Your task to perform on an android device: Add macbook air to the cart on newegg.com Image 0: 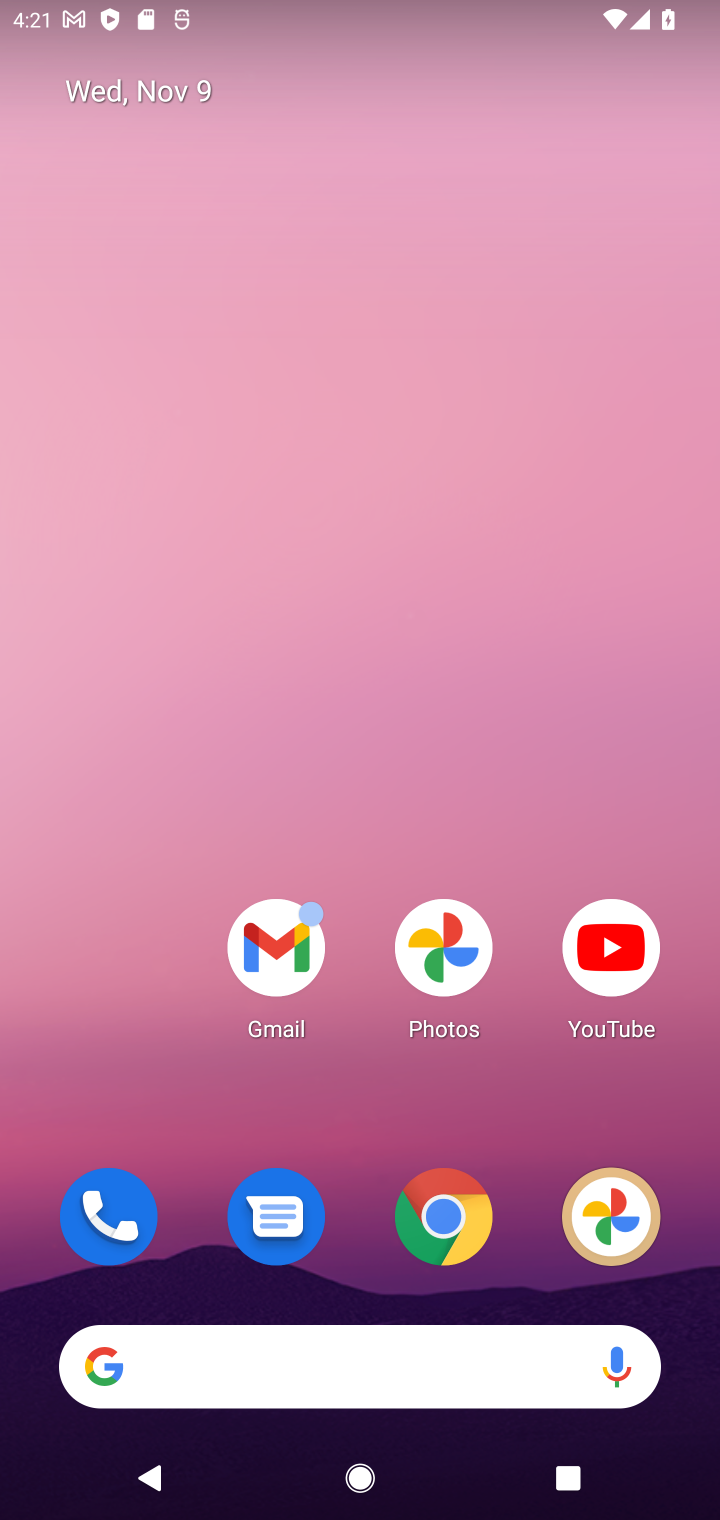
Step 0: drag from (374, 979) to (355, 29)
Your task to perform on an android device: Add macbook air to the cart on newegg.com Image 1: 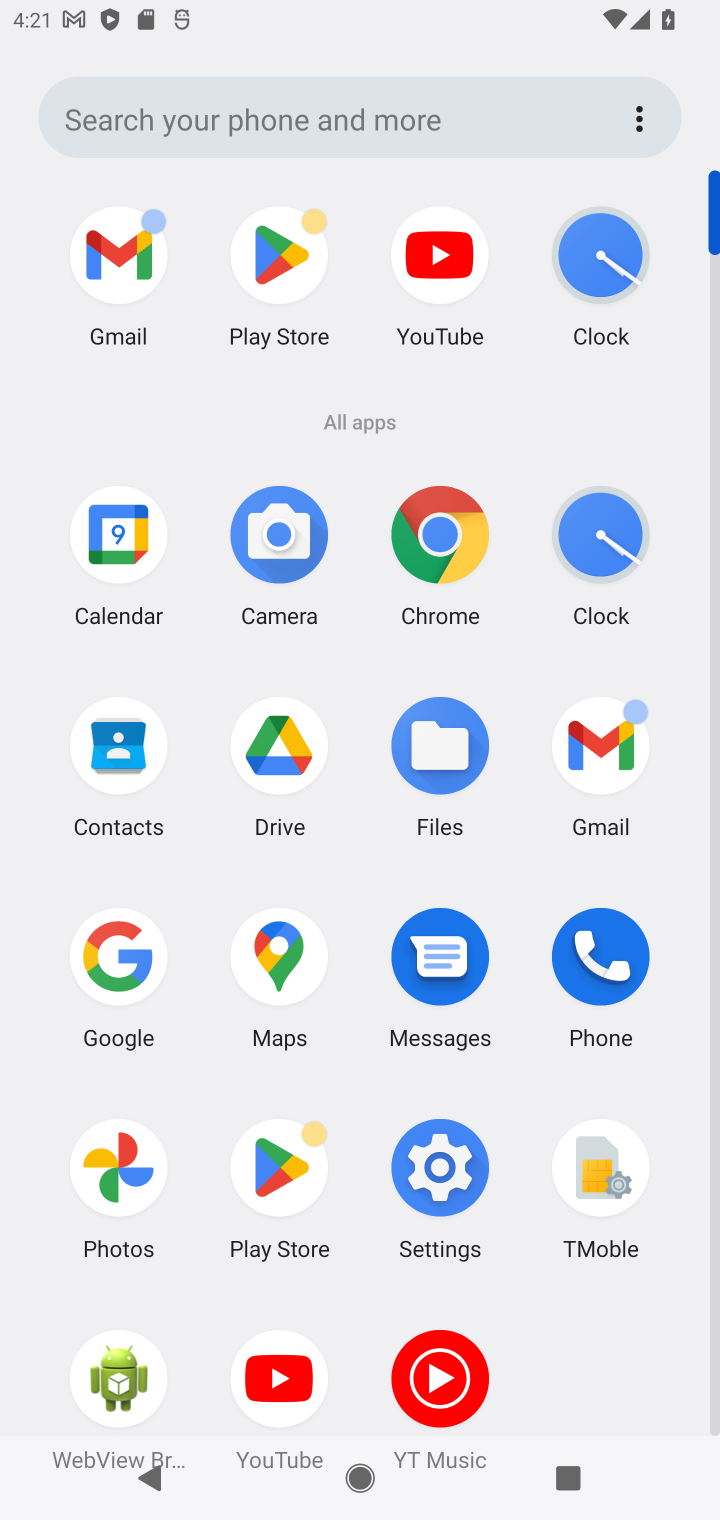
Step 1: click (436, 538)
Your task to perform on an android device: Add macbook air to the cart on newegg.com Image 2: 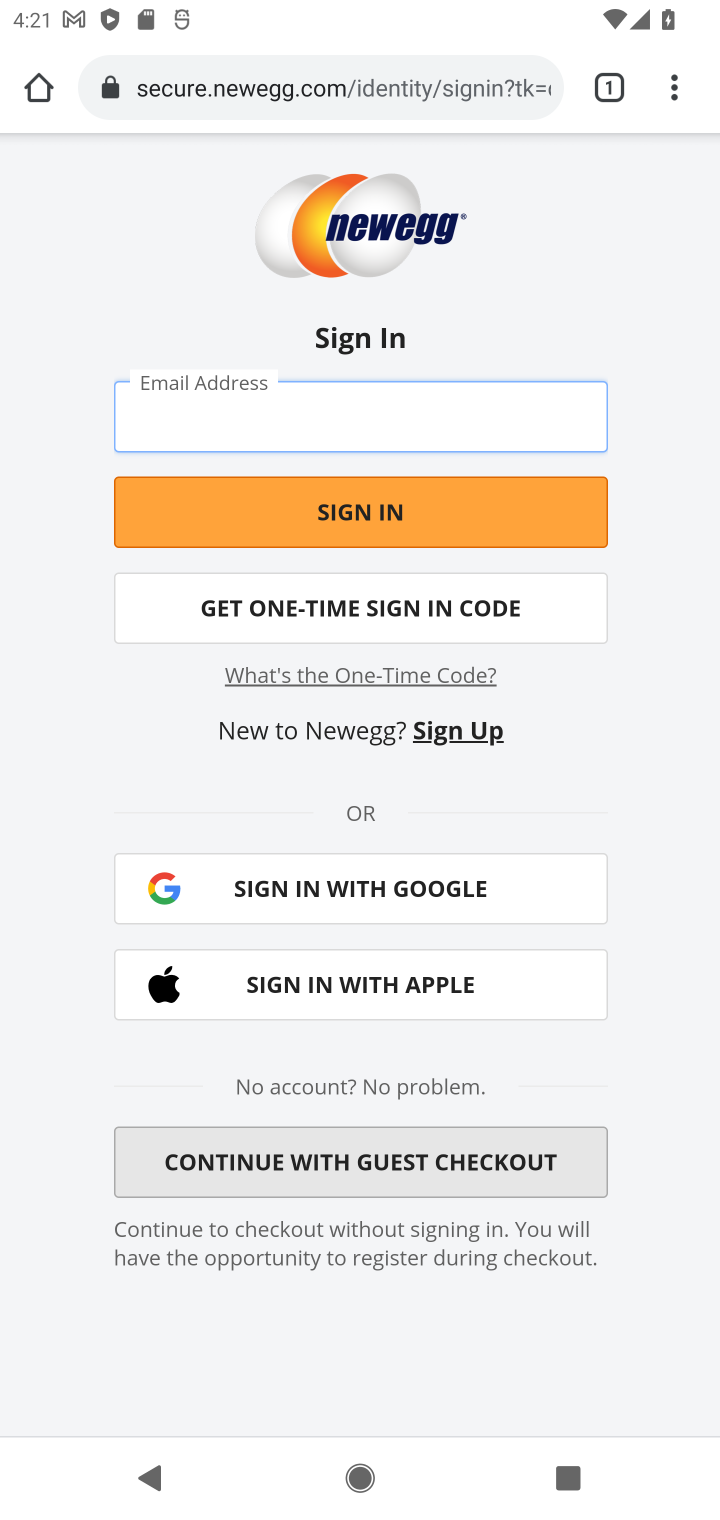
Step 2: click (386, 86)
Your task to perform on an android device: Add macbook air to the cart on newegg.com Image 3: 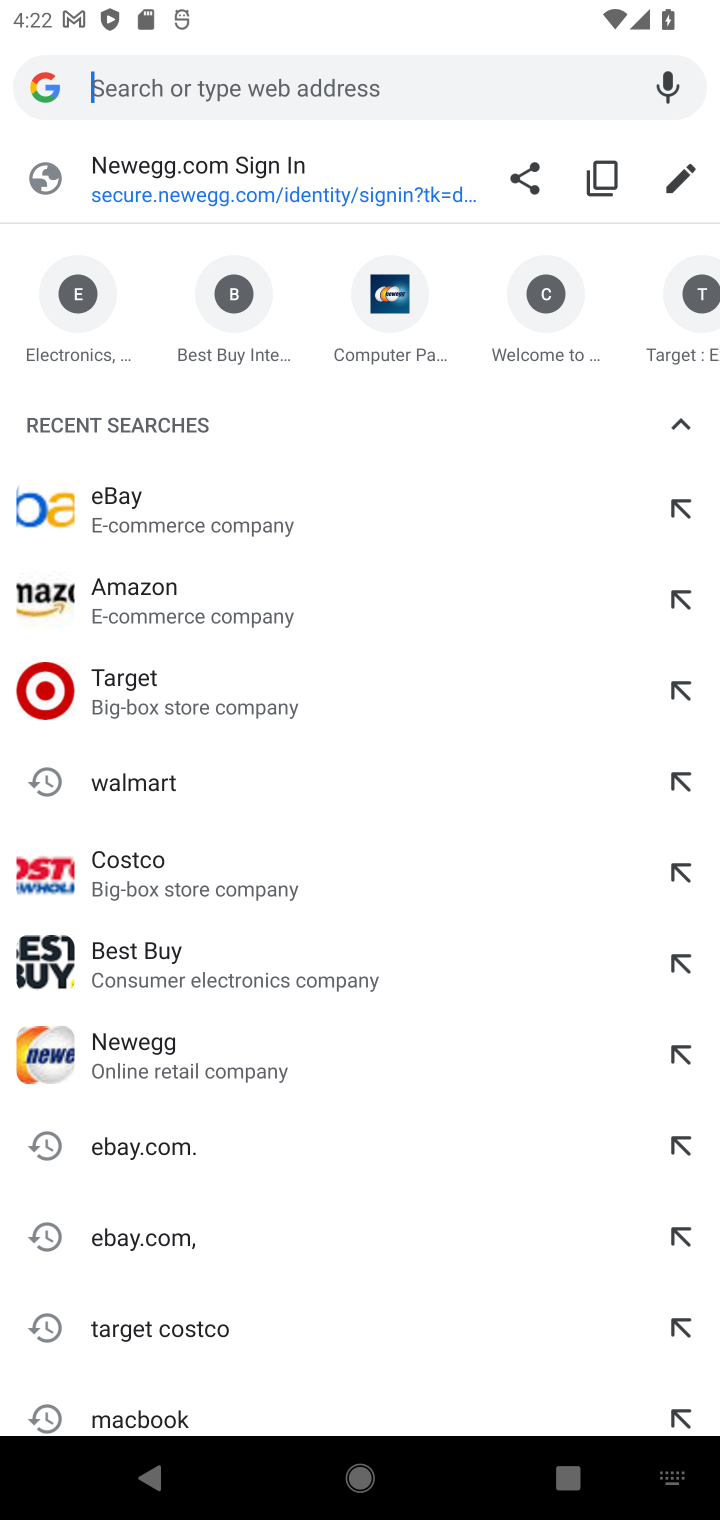
Step 3: click (217, 1073)
Your task to perform on an android device: Add macbook air to the cart on newegg.com Image 4: 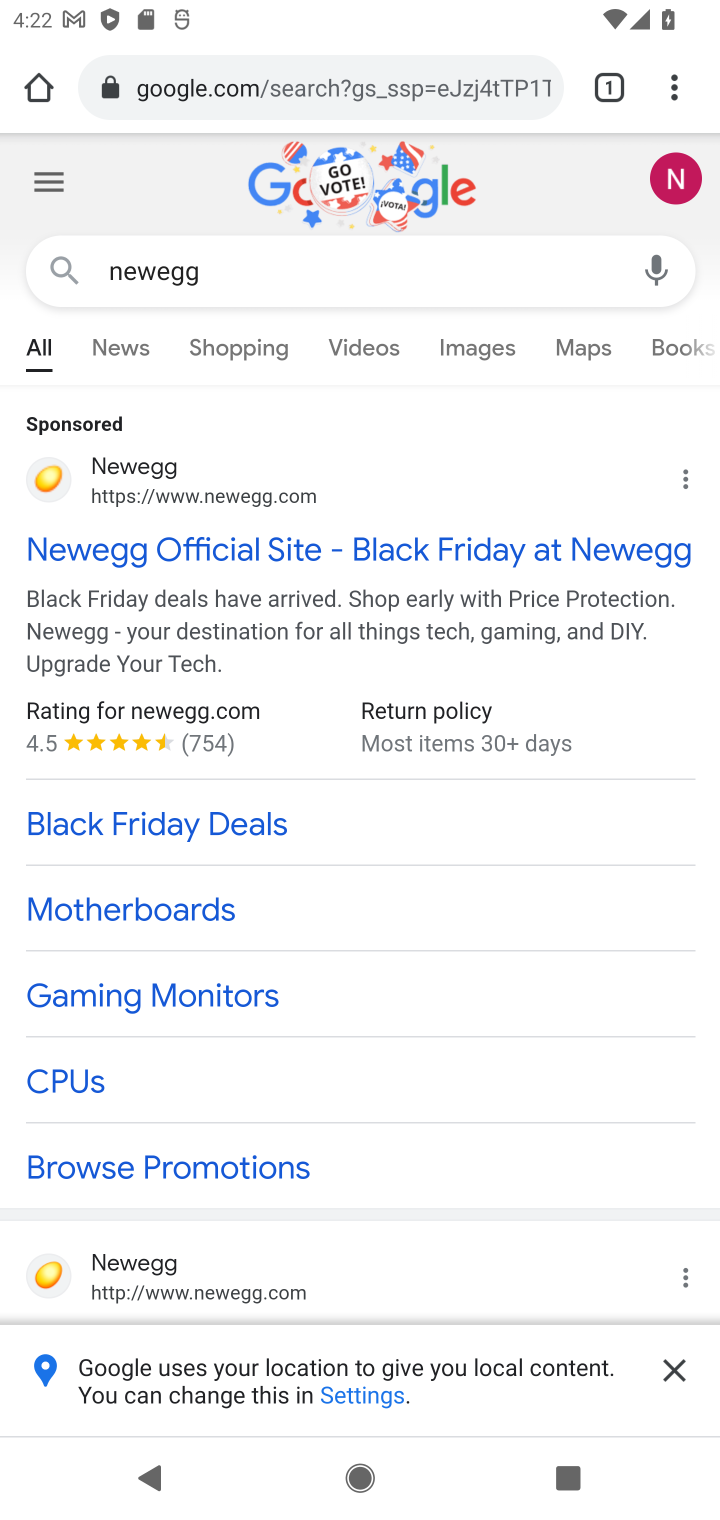
Step 4: drag from (324, 1207) to (384, 386)
Your task to perform on an android device: Add macbook air to the cart on newegg.com Image 5: 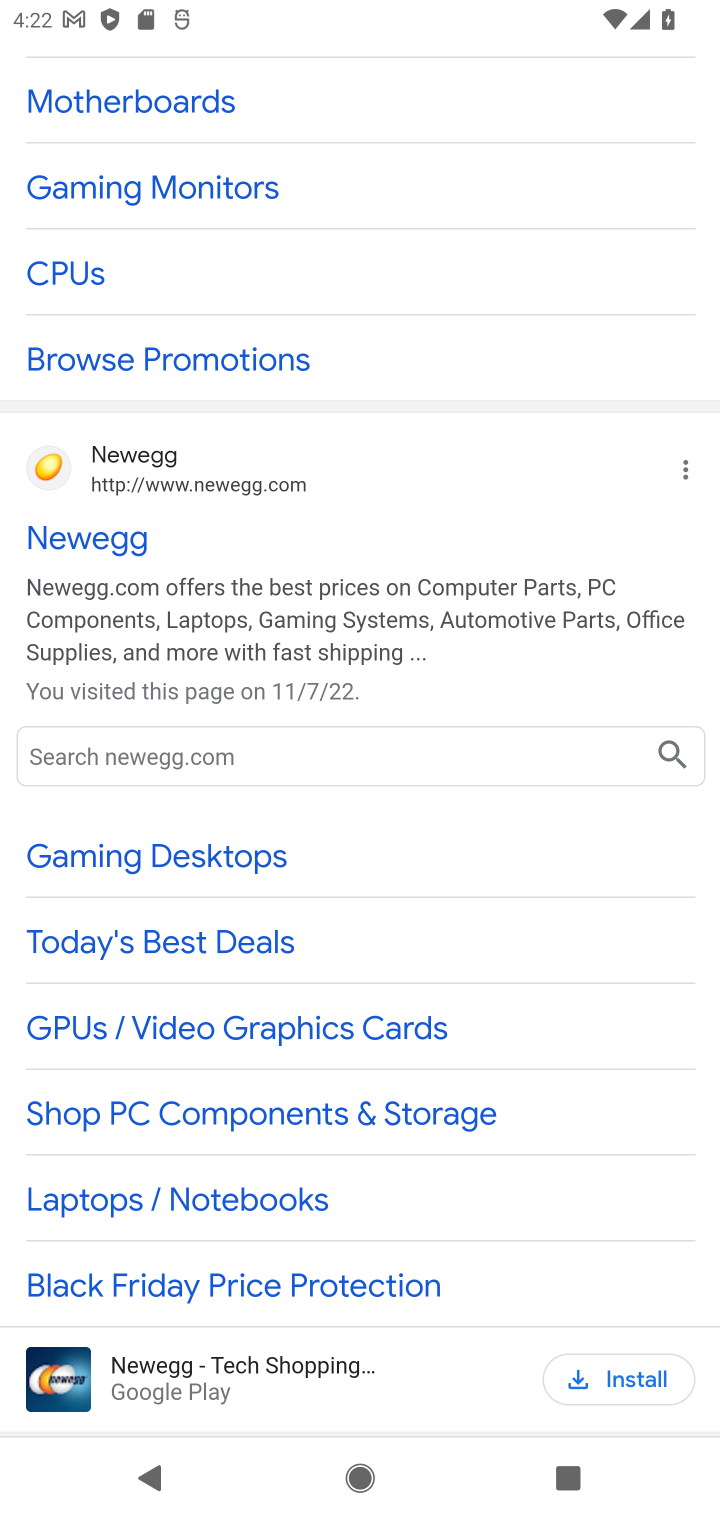
Step 5: click (107, 545)
Your task to perform on an android device: Add macbook air to the cart on newegg.com Image 6: 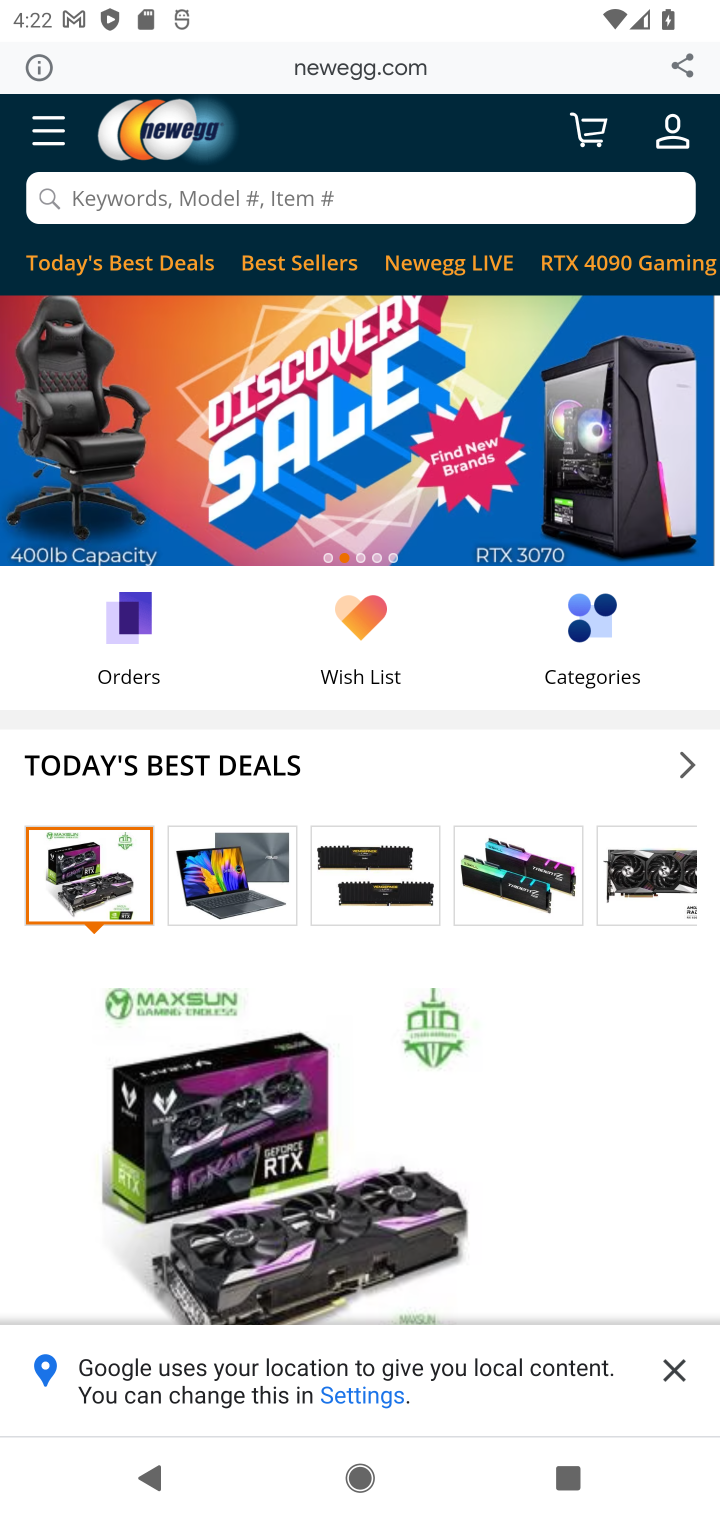
Step 6: click (460, 203)
Your task to perform on an android device: Add macbook air to the cart on newegg.com Image 7: 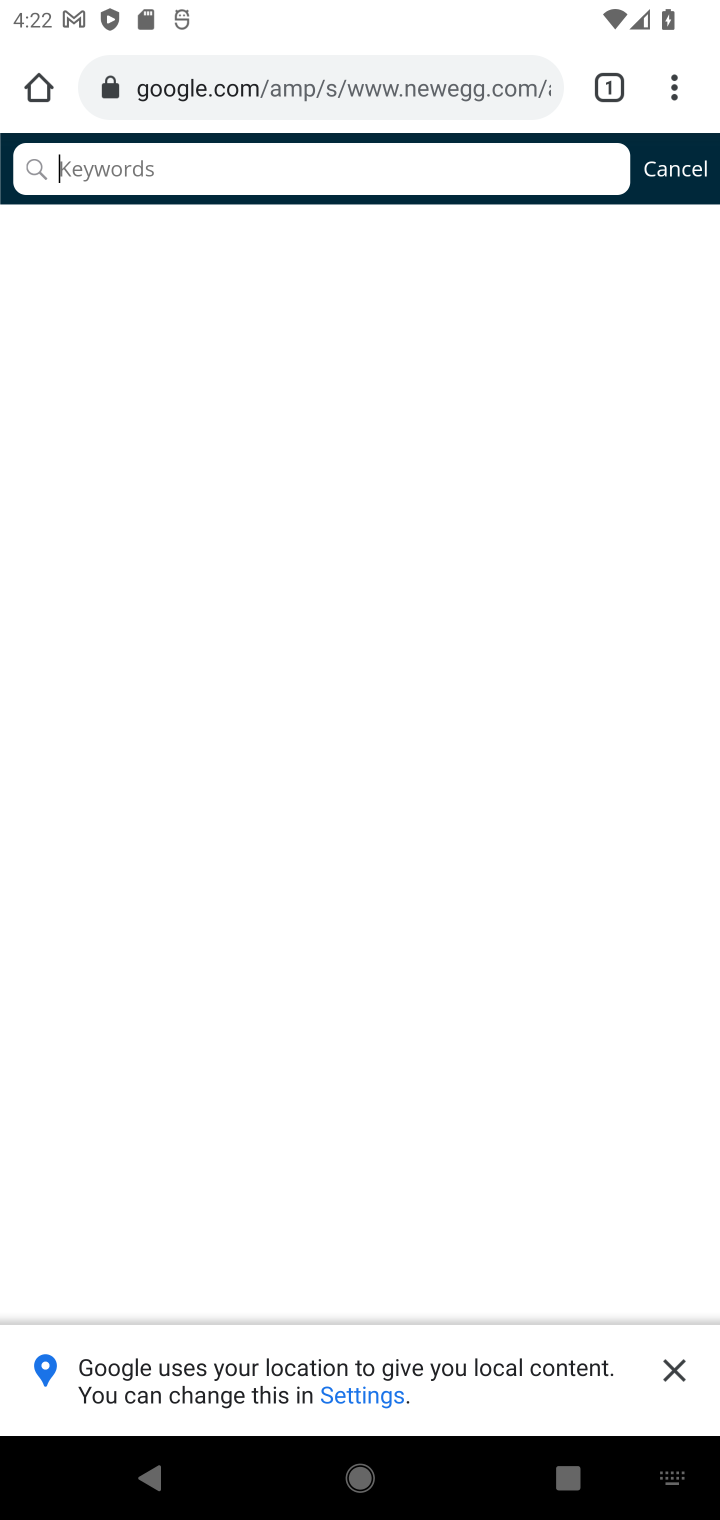
Step 7: type "macbook air"
Your task to perform on an android device: Add macbook air to the cart on newegg.com Image 8: 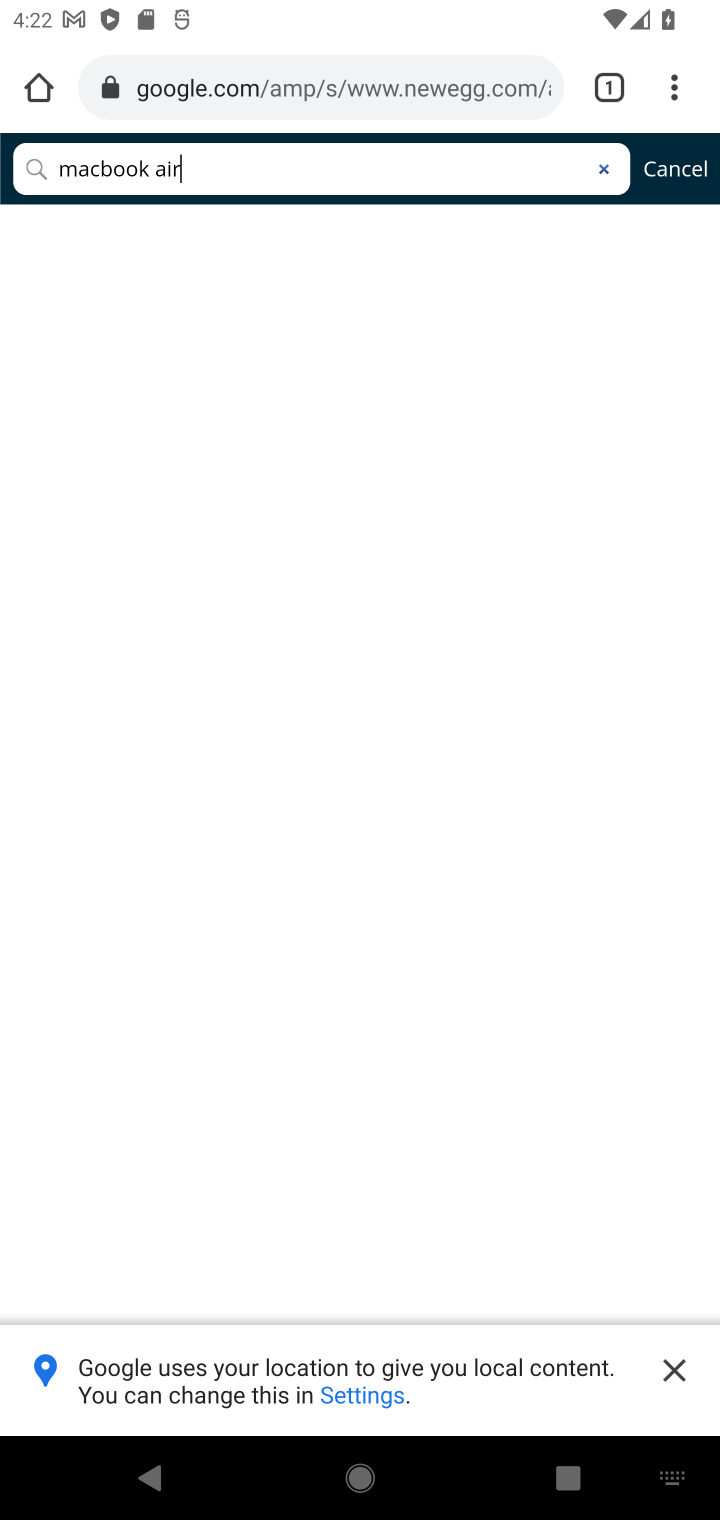
Step 8: press enter
Your task to perform on an android device: Add macbook air to the cart on newegg.com Image 9: 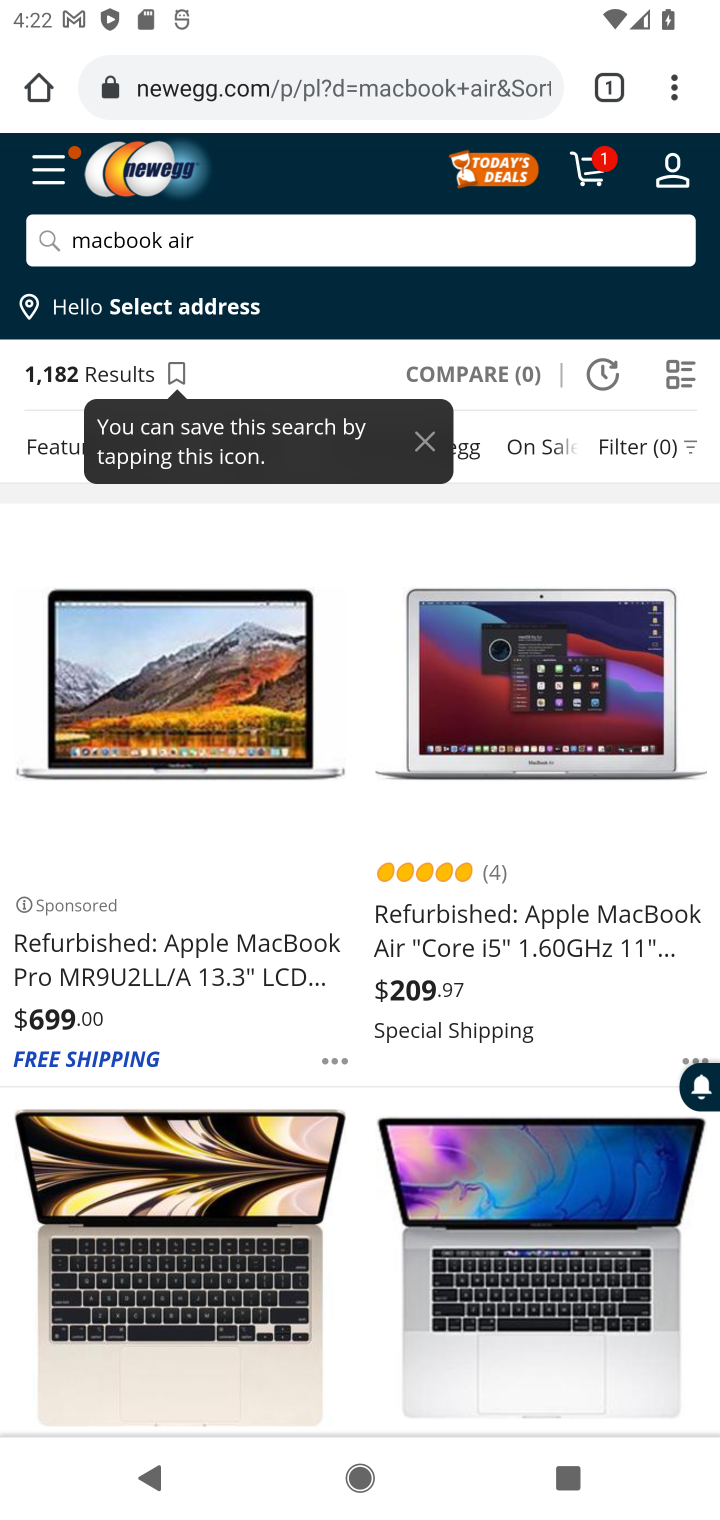
Step 9: drag from (532, 1225) to (543, 715)
Your task to perform on an android device: Add macbook air to the cart on newegg.com Image 10: 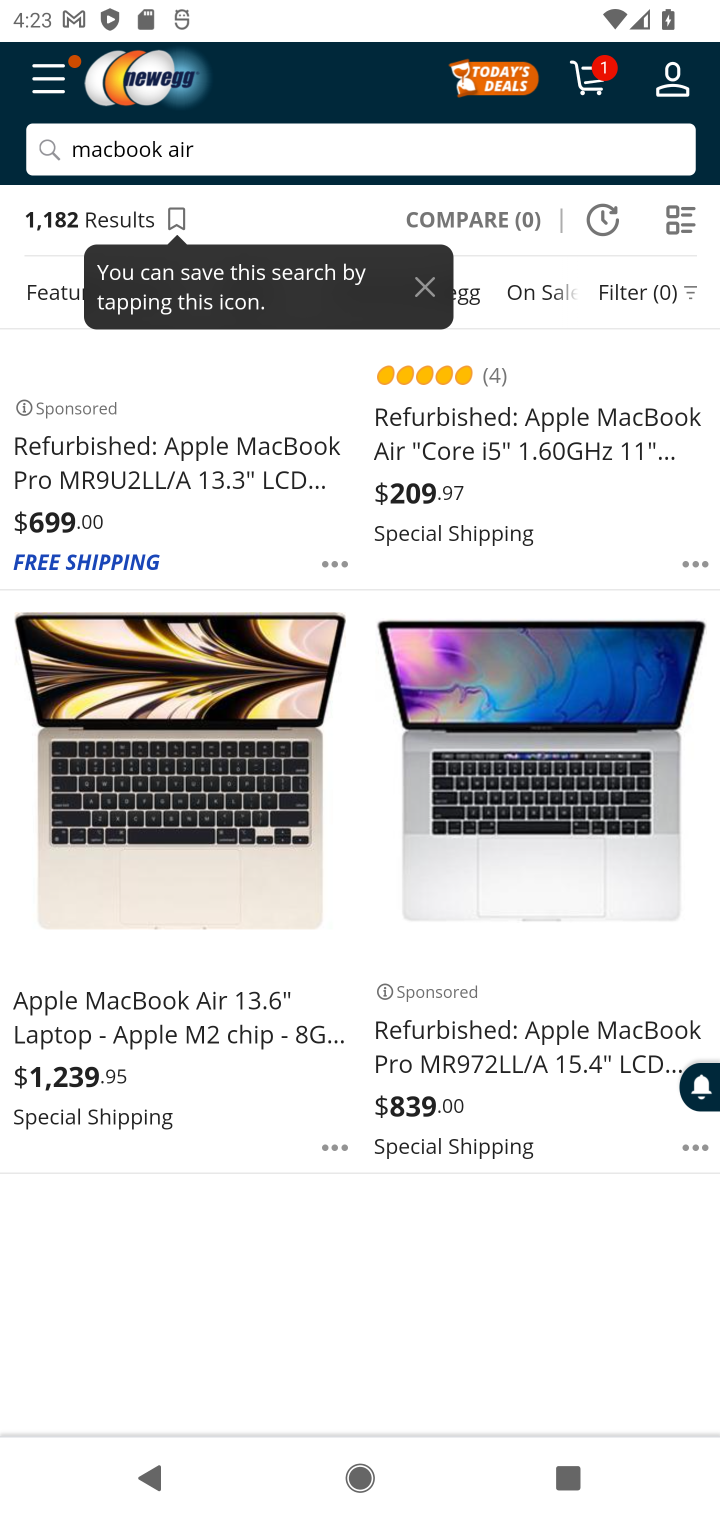
Step 10: click (216, 914)
Your task to perform on an android device: Add macbook air to the cart on newegg.com Image 11: 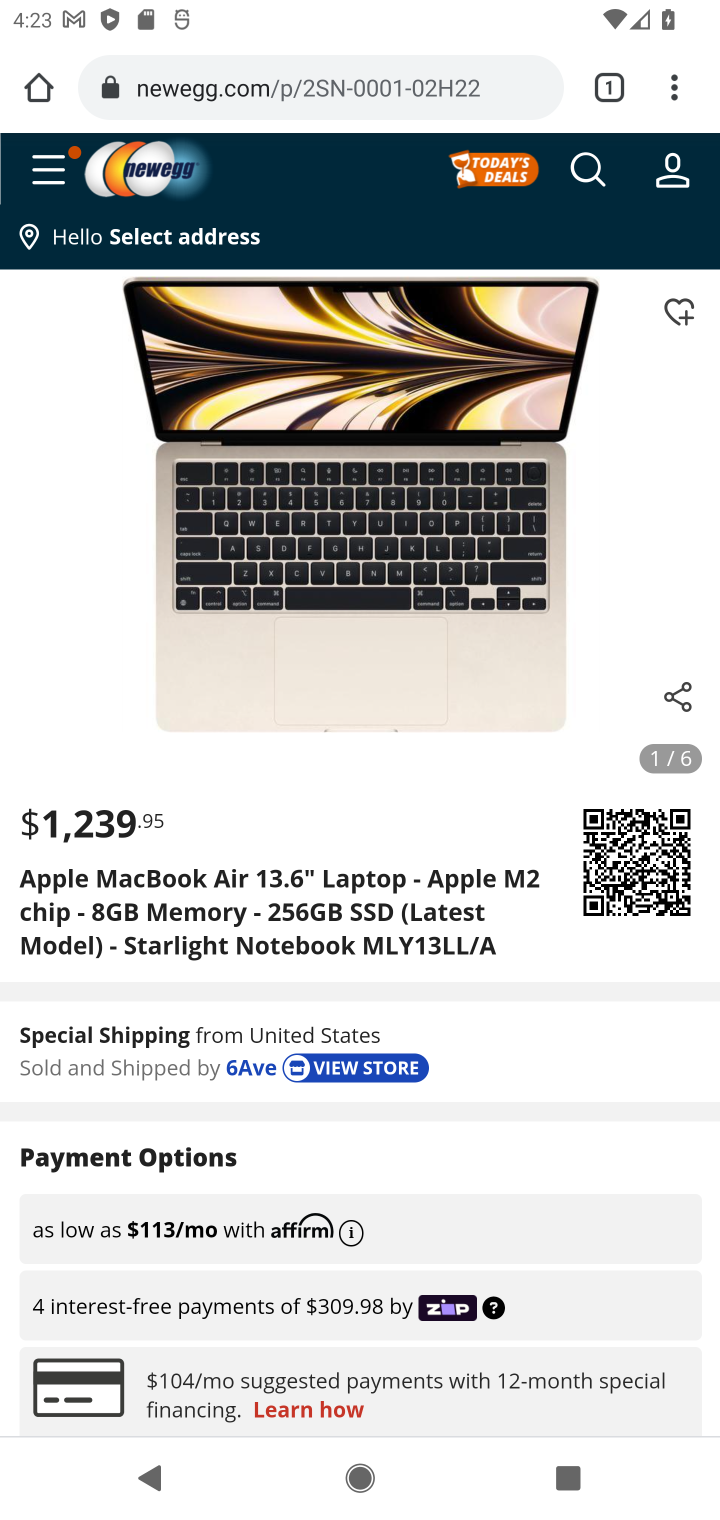
Step 11: drag from (508, 1204) to (492, 673)
Your task to perform on an android device: Add macbook air to the cart on newegg.com Image 12: 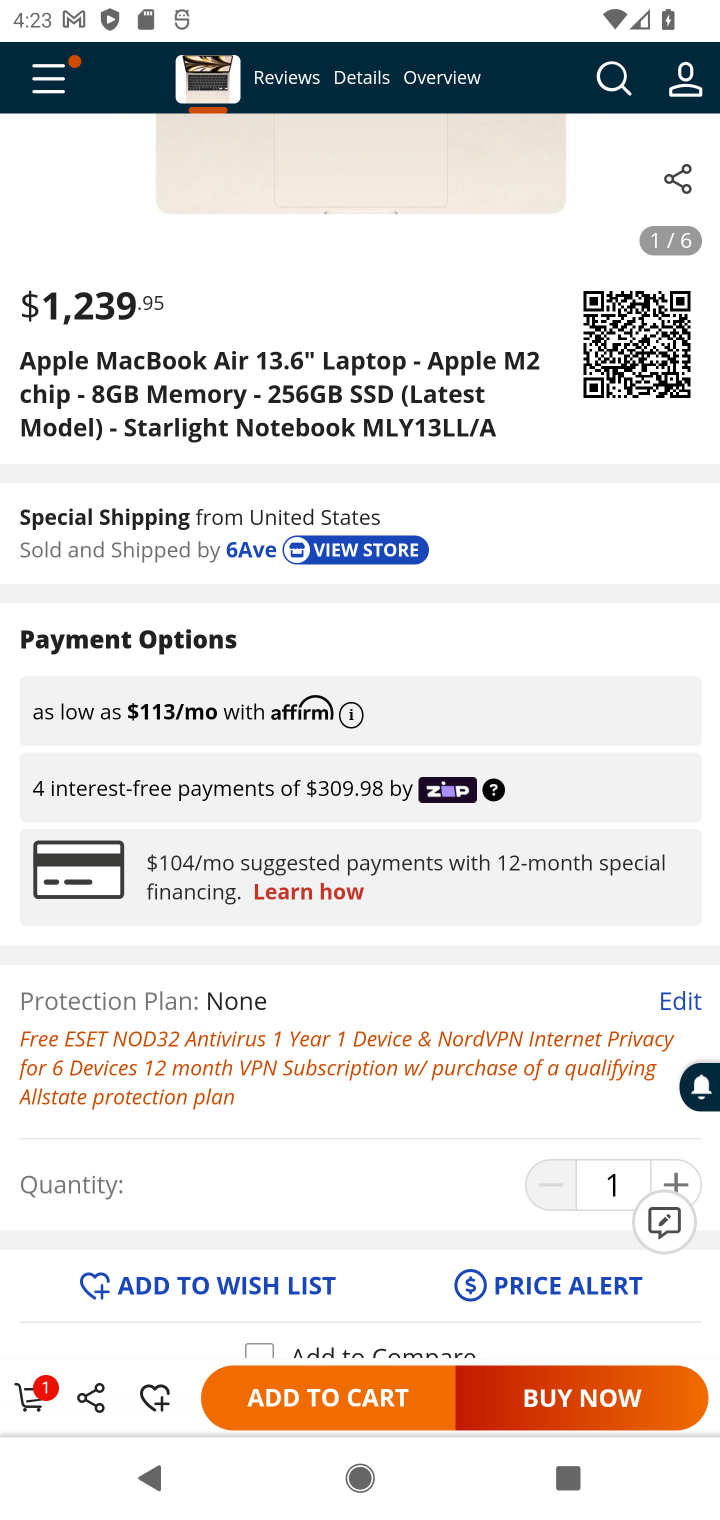
Step 12: click (356, 1409)
Your task to perform on an android device: Add macbook air to the cart on newegg.com Image 13: 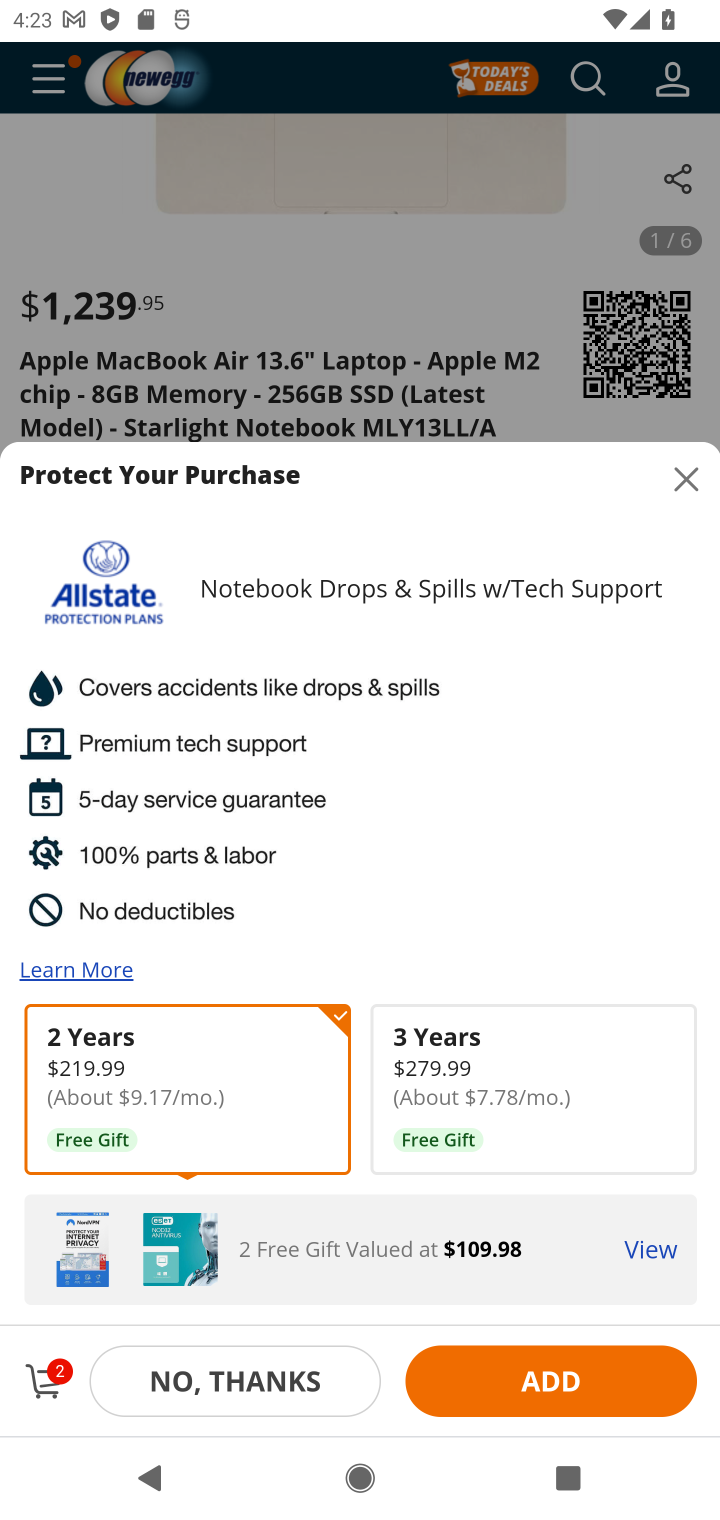
Step 13: task complete